Your task to perform on an android device: Add "macbook pro 13 inch" to the cart on ebay, then select checkout. Image 0: 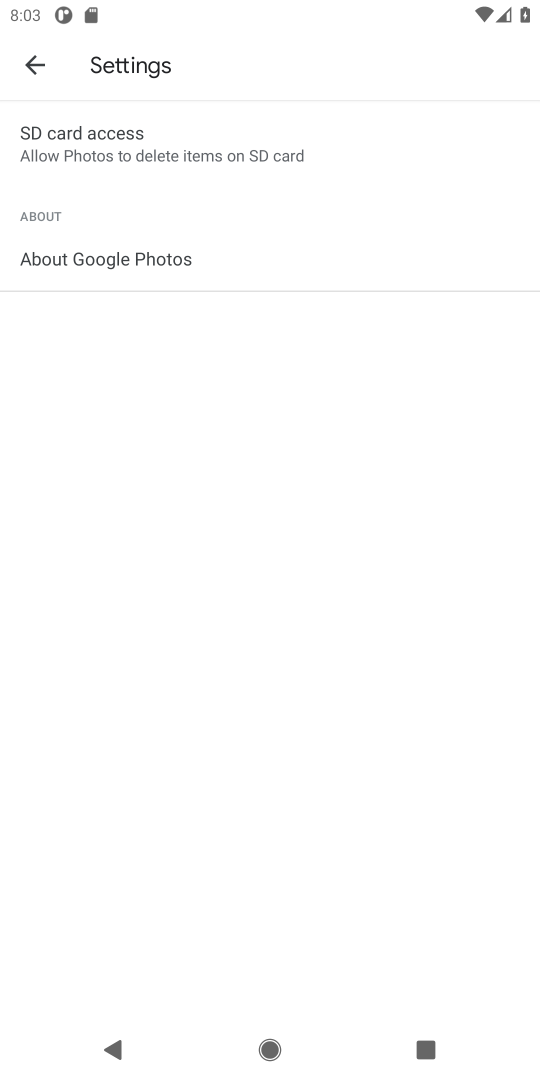
Step 0: press home button
Your task to perform on an android device: Add "macbook pro 13 inch" to the cart on ebay, then select checkout. Image 1: 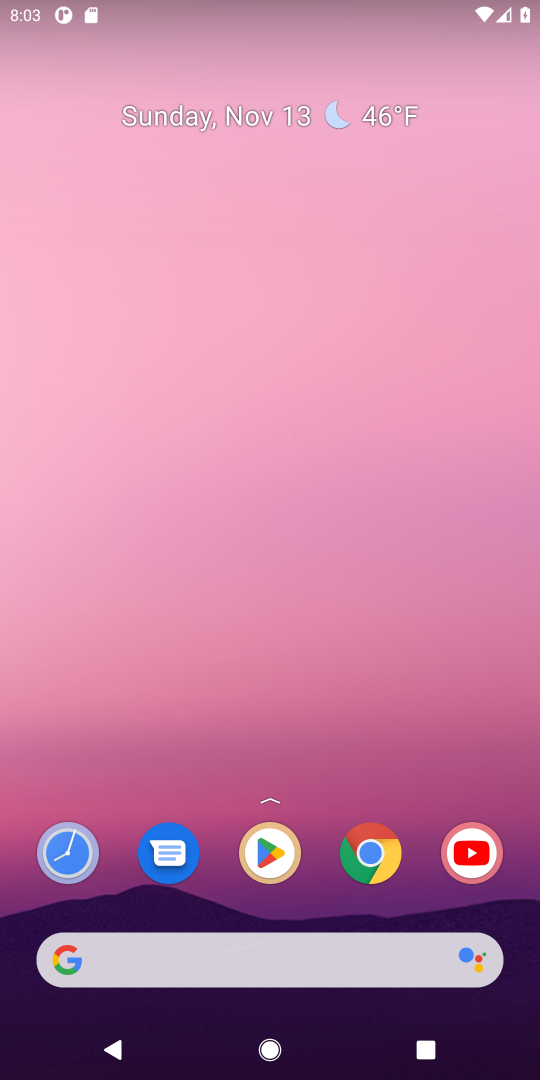
Step 1: click (107, 967)
Your task to perform on an android device: Add "macbook pro 13 inch" to the cart on ebay, then select checkout. Image 2: 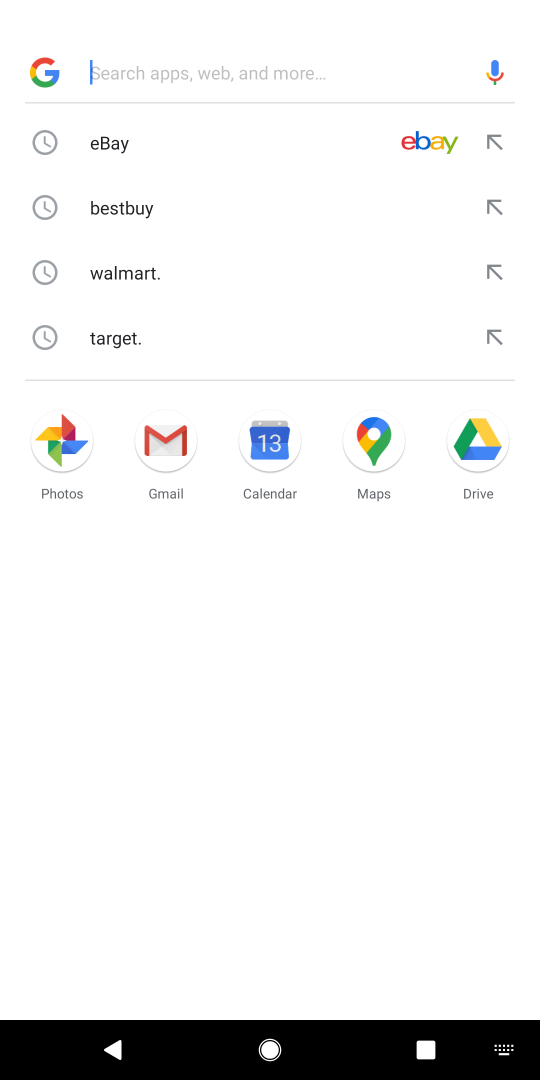
Step 2: click (106, 140)
Your task to perform on an android device: Add "macbook pro 13 inch" to the cart on ebay, then select checkout. Image 3: 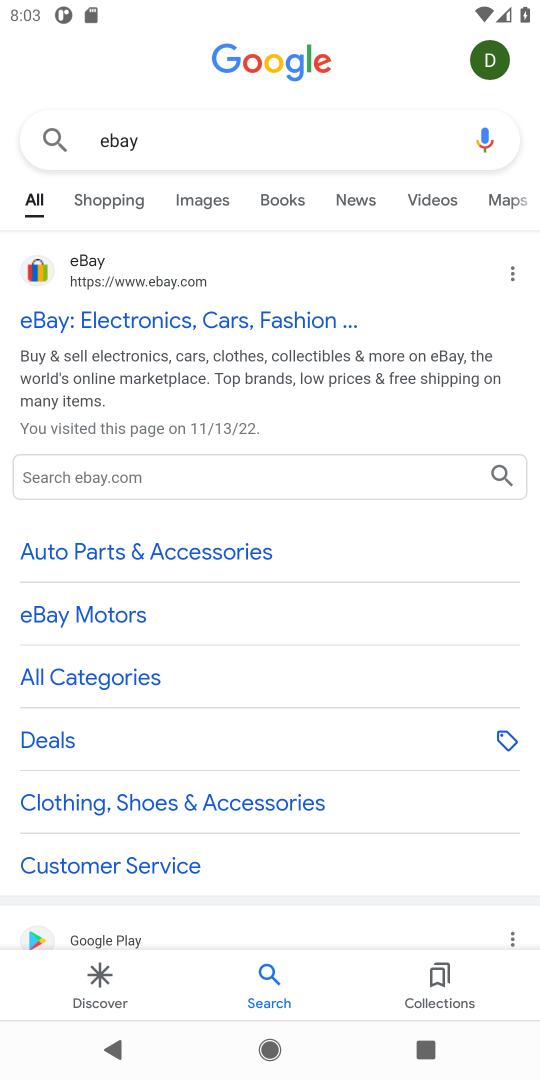
Step 3: click (283, 320)
Your task to perform on an android device: Add "macbook pro 13 inch" to the cart on ebay, then select checkout. Image 4: 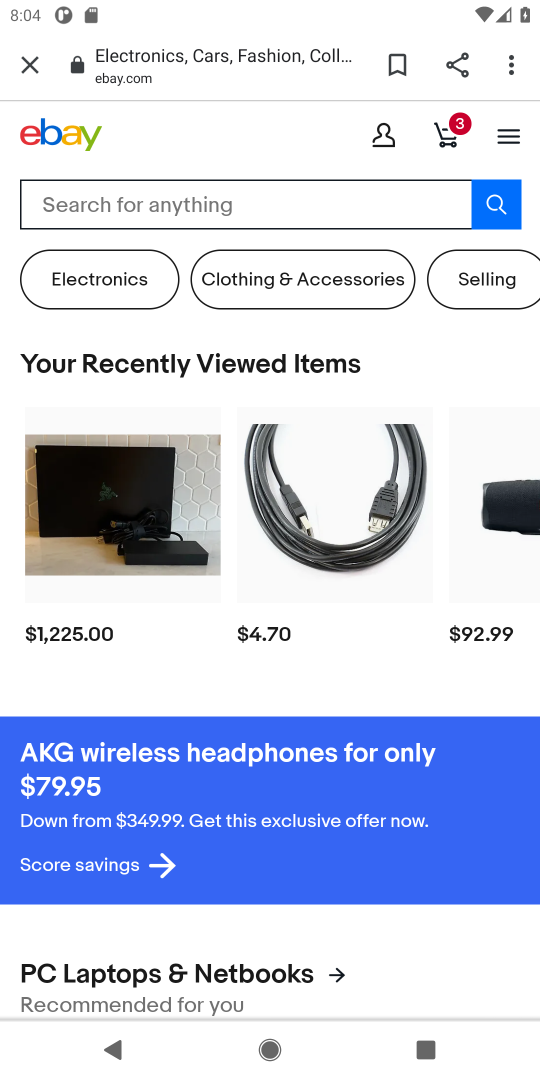
Step 4: click (104, 203)
Your task to perform on an android device: Add "macbook pro 13 inch" to the cart on ebay, then select checkout. Image 5: 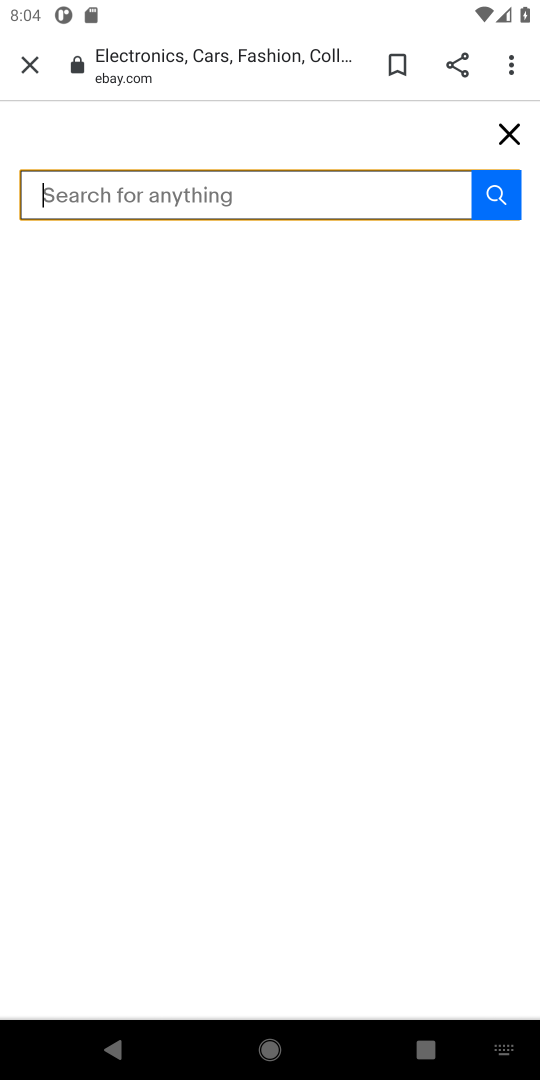
Step 5: type ""macbook pro 13 inch"
Your task to perform on an android device: Add "macbook pro 13 inch" to the cart on ebay, then select checkout. Image 6: 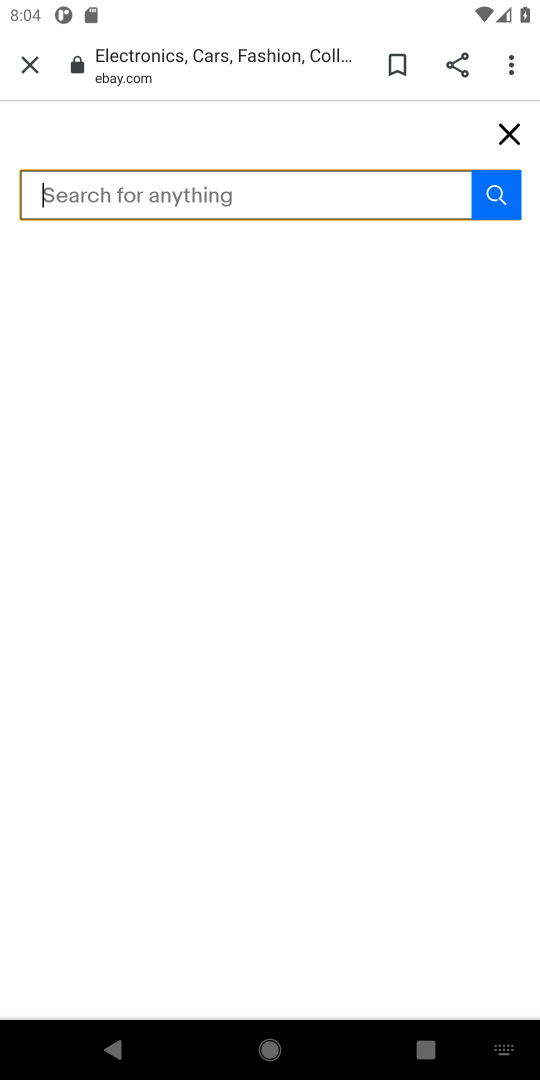
Step 6: press enter
Your task to perform on an android device: Add "macbook pro 13 inch" to the cart on ebay, then select checkout. Image 7: 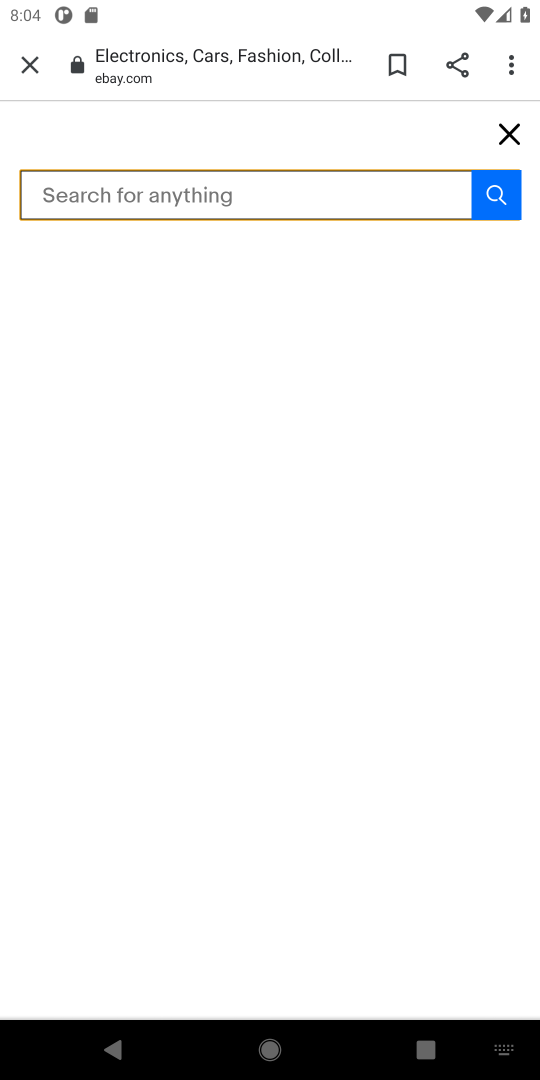
Step 7: press enter
Your task to perform on an android device: Add "macbook pro 13 inch" to the cart on ebay, then select checkout. Image 8: 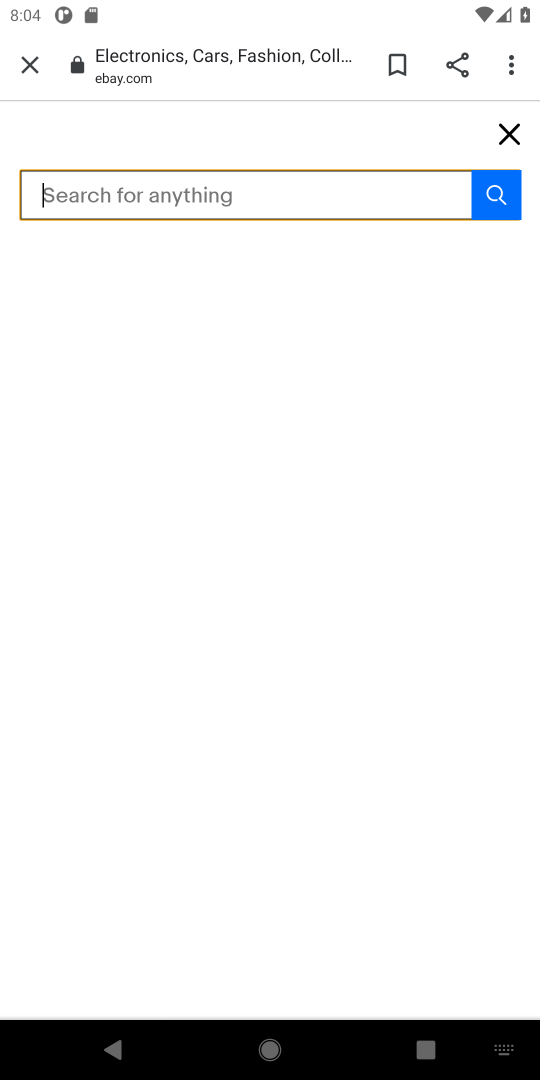
Step 8: press enter
Your task to perform on an android device: Add "macbook pro 13 inch" to the cart on ebay, then select checkout. Image 9: 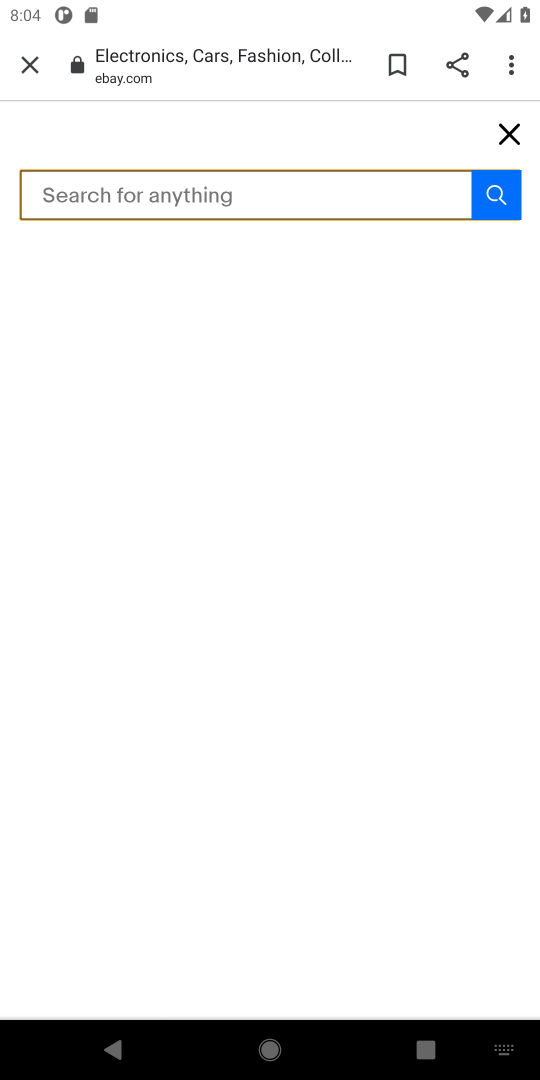
Step 9: type ""macbook pro 13 inch"
Your task to perform on an android device: Add "macbook pro 13 inch" to the cart on ebay, then select checkout. Image 10: 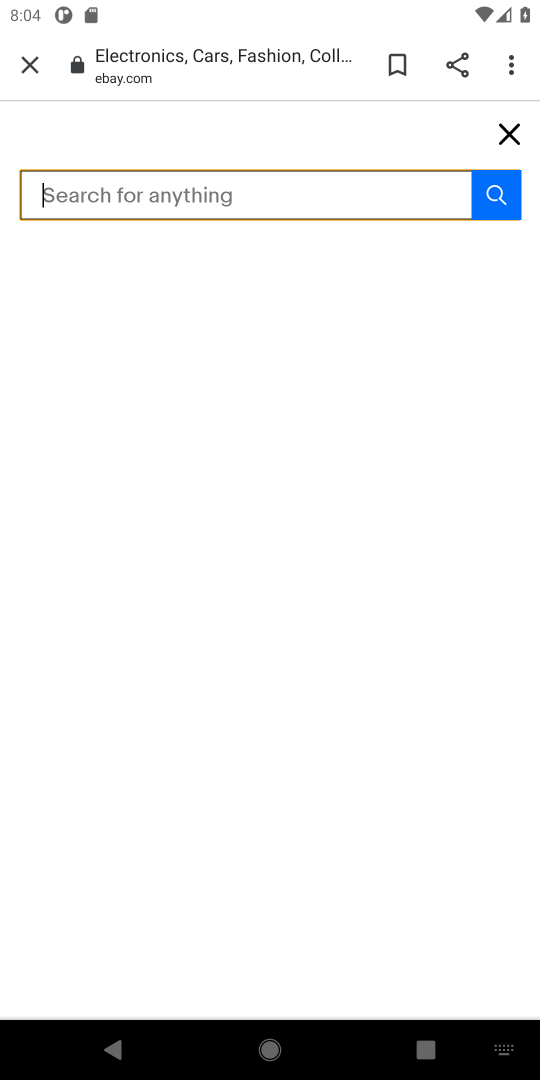
Step 10: type ""macbook pro 13 inch"
Your task to perform on an android device: Add "macbook pro 13 inch" to the cart on ebay, then select checkout. Image 11: 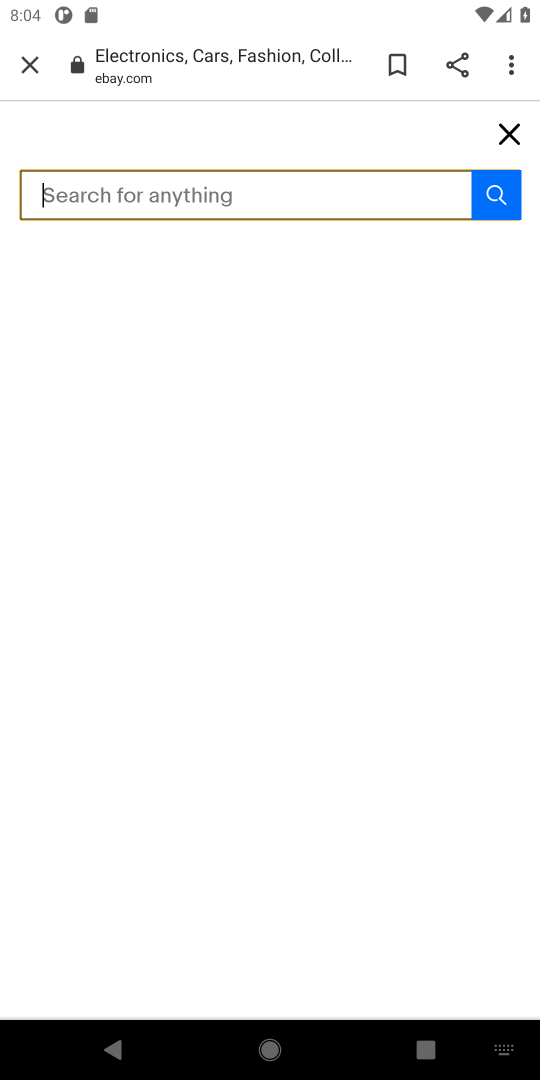
Step 11: task complete